Your task to perform on an android device: find which apps use the phone's location Image 0: 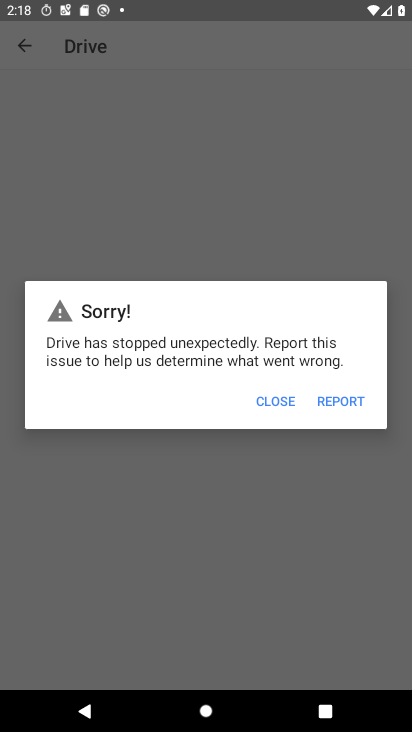
Step 0: press home button
Your task to perform on an android device: find which apps use the phone's location Image 1: 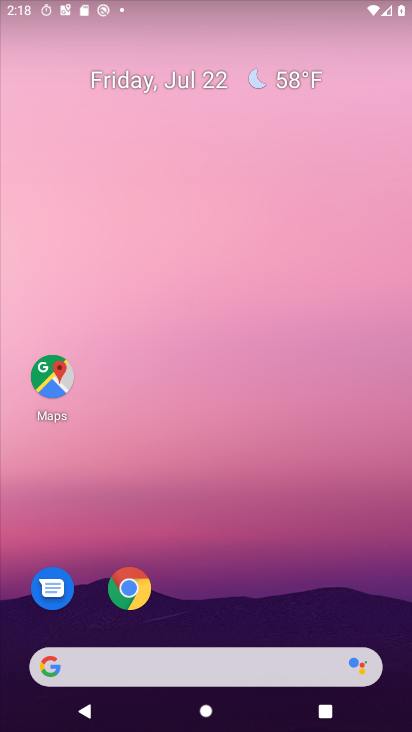
Step 1: drag from (261, 532) to (252, 7)
Your task to perform on an android device: find which apps use the phone's location Image 2: 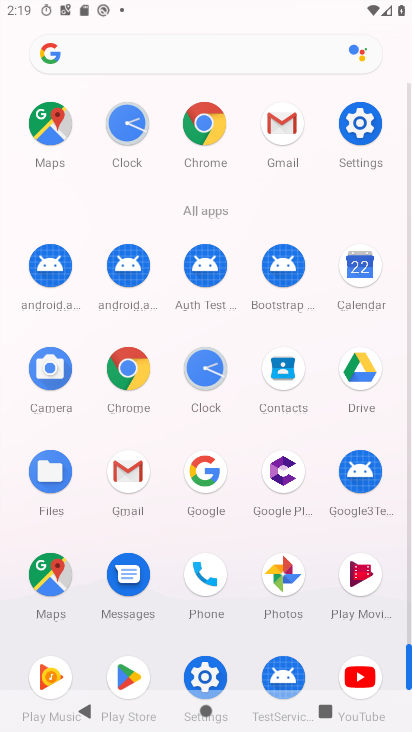
Step 2: click (209, 586)
Your task to perform on an android device: find which apps use the phone's location Image 3: 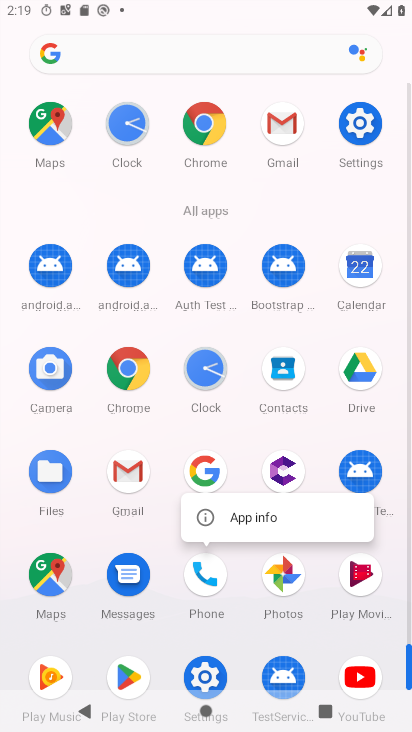
Step 3: click (225, 527)
Your task to perform on an android device: find which apps use the phone's location Image 4: 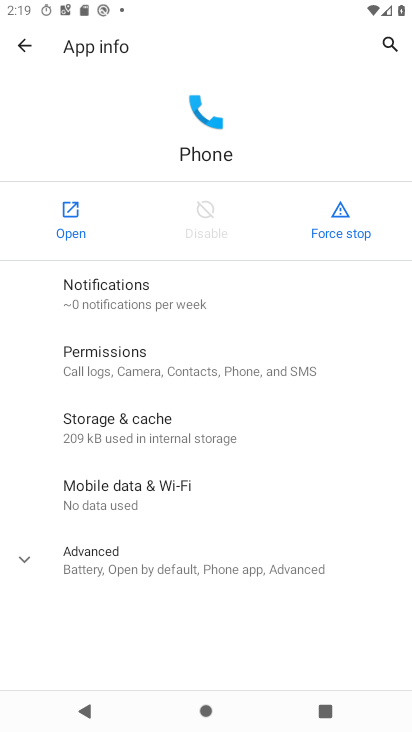
Step 4: click (106, 381)
Your task to perform on an android device: find which apps use the phone's location Image 5: 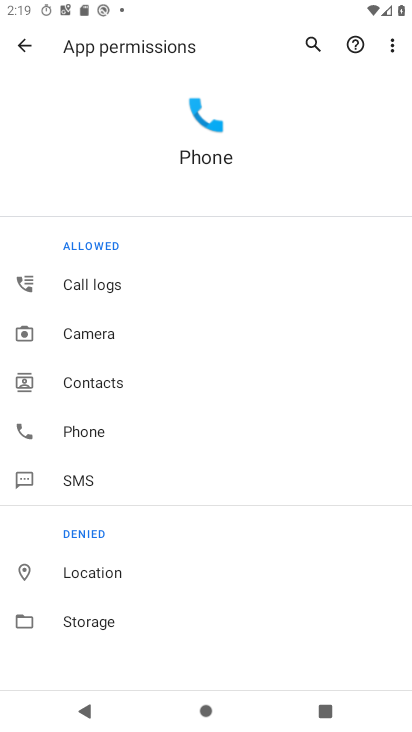
Step 5: click (85, 569)
Your task to perform on an android device: find which apps use the phone's location Image 6: 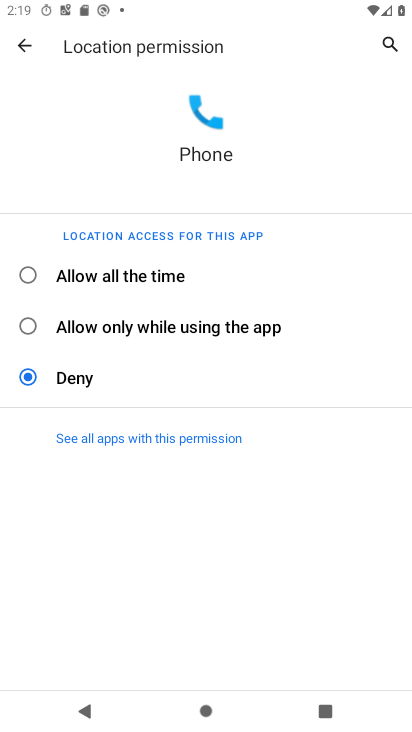
Step 6: click (33, 273)
Your task to perform on an android device: find which apps use the phone's location Image 7: 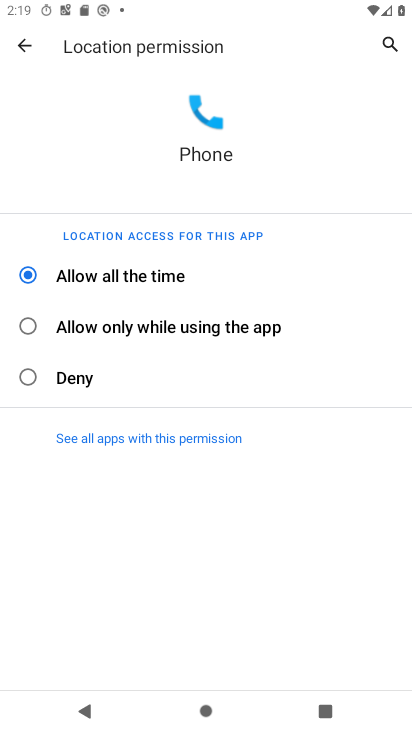
Step 7: task complete